Your task to perform on an android device: turn on location history Image 0: 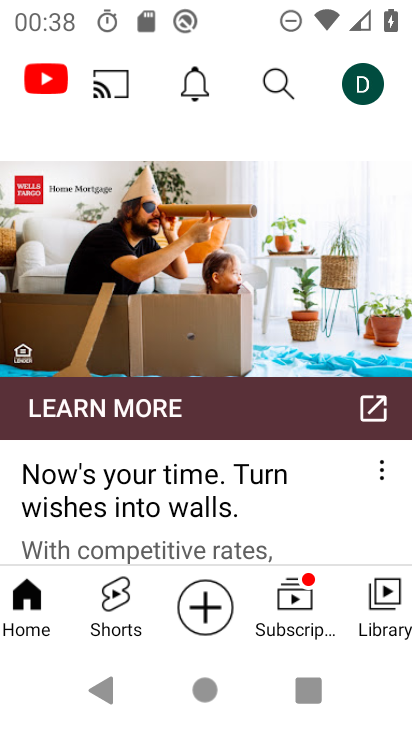
Step 0: press home button
Your task to perform on an android device: turn on location history Image 1: 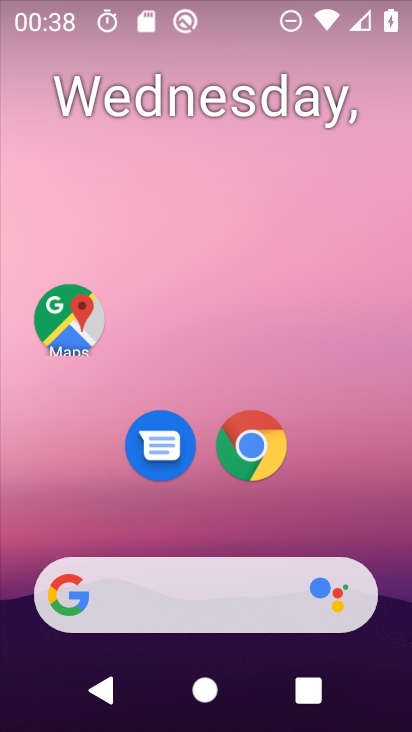
Step 1: drag from (306, 511) to (310, 8)
Your task to perform on an android device: turn on location history Image 2: 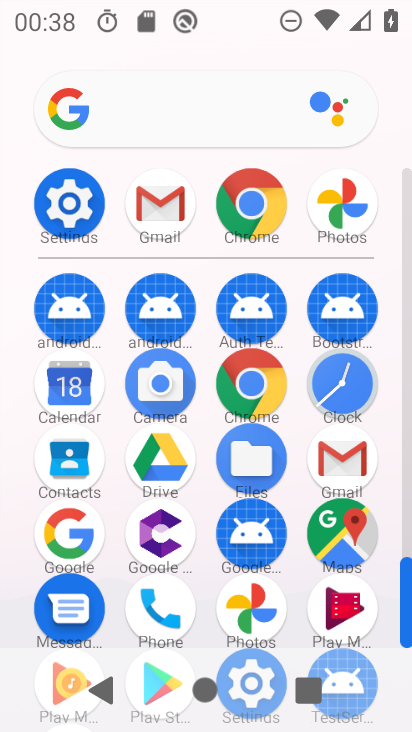
Step 2: click (67, 201)
Your task to perform on an android device: turn on location history Image 3: 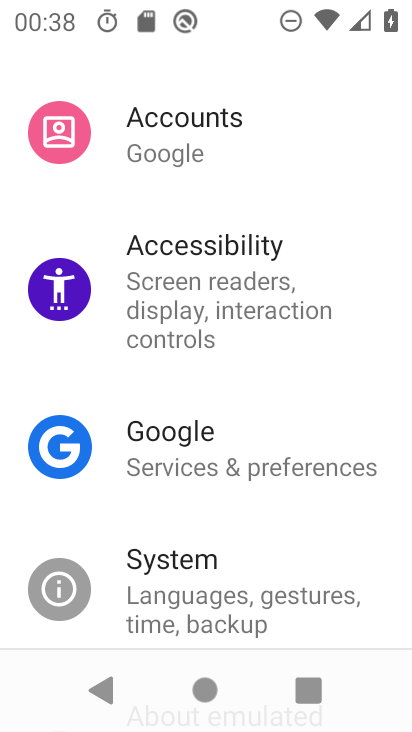
Step 3: drag from (265, 586) to (286, 714)
Your task to perform on an android device: turn on location history Image 4: 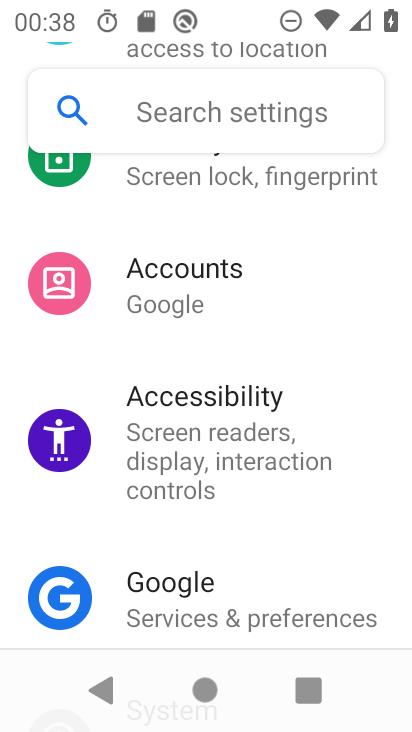
Step 4: drag from (311, 383) to (303, 634)
Your task to perform on an android device: turn on location history Image 5: 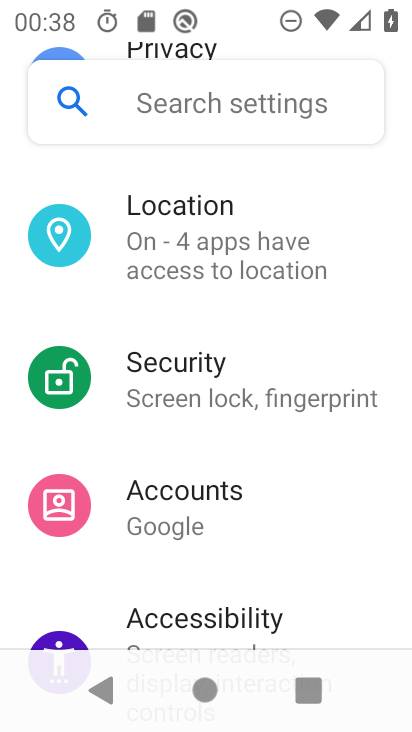
Step 5: click (279, 256)
Your task to perform on an android device: turn on location history Image 6: 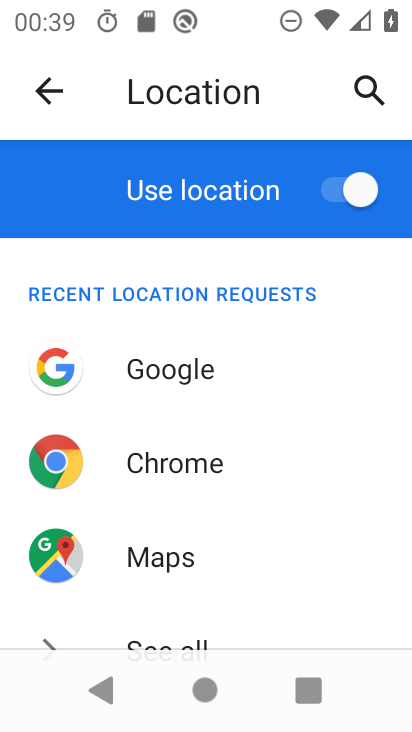
Step 6: drag from (169, 530) to (229, 354)
Your task to perform on an android device: turn on location history Image 7: 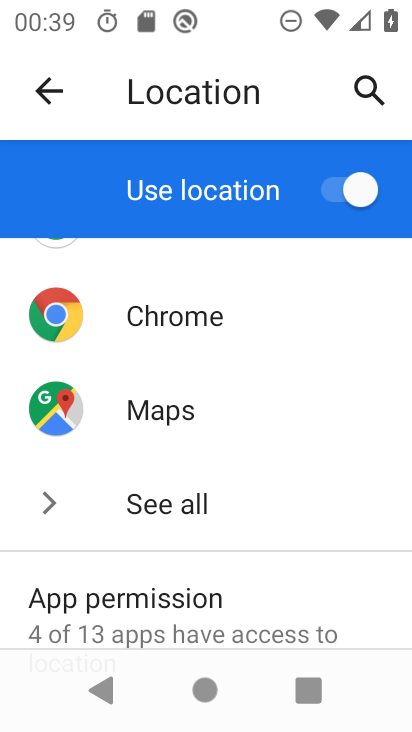
Step 7: drag from (214, 566) to (277, 381)
Your task to perform on an android device: turn on location history Image 8: 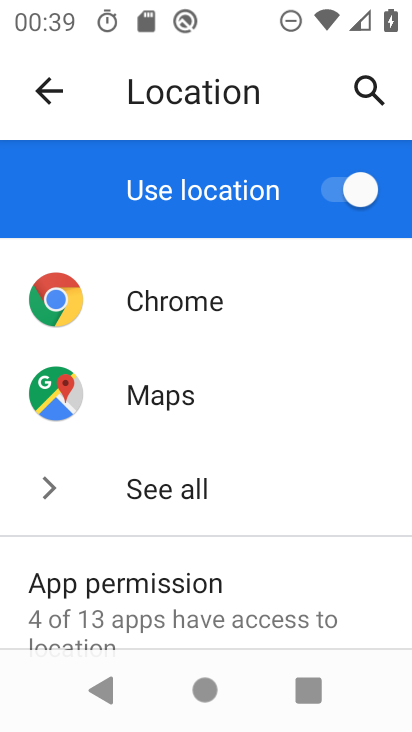
Step 8: drag from (216, 596) to (287, 339)
Your task to perform on an android device: turn on location history Image 9: 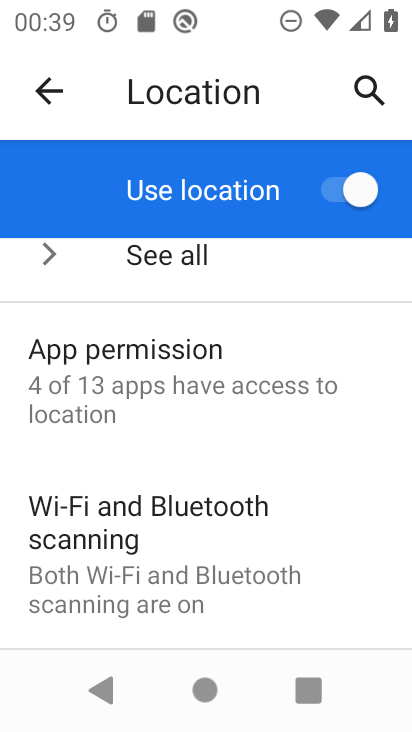
Step 9: drag from (215, 621) to (299, 286)
Your task to perform on an android device: turn on location history Image 10: 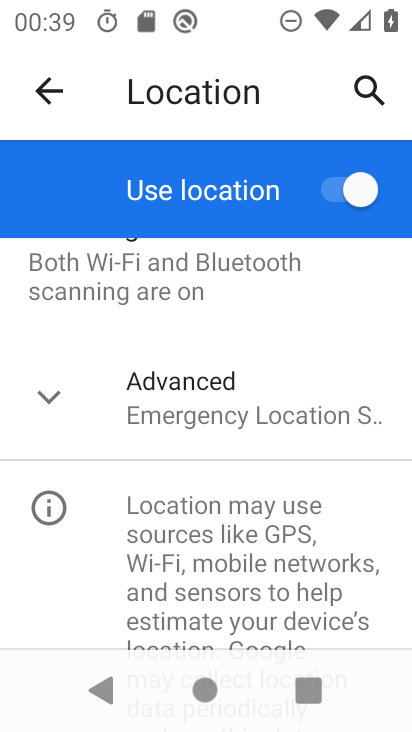
Step 10: click (218, 388)
Your task to perform on an android device: turn on location history Image 11: 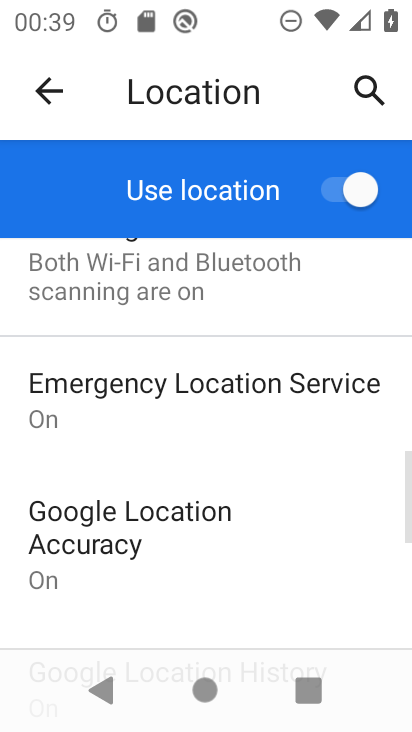
Step 11: drag from (185, 558) to (232, 311)
Your task to perform on an android device: turn on location history Image 12: 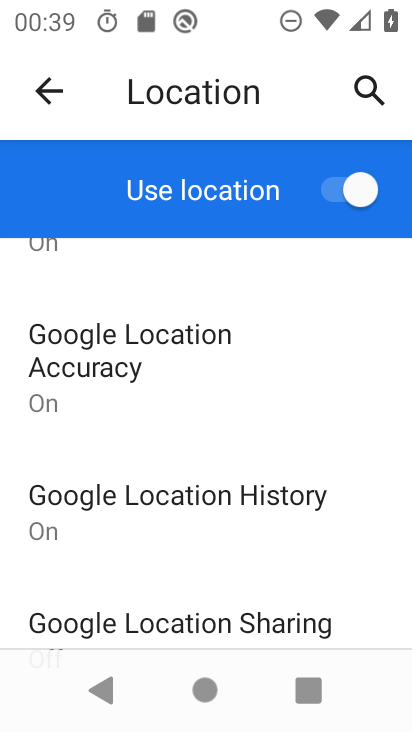
Step 12: click (201, 485)
Your task to perform on an android device: turn on location history Image 13: 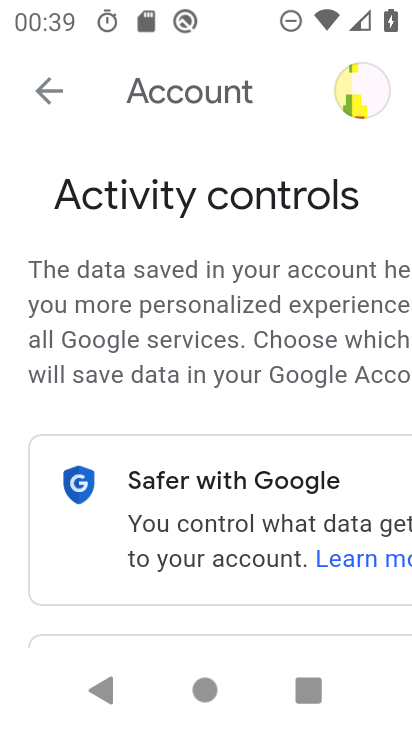
Step 13: task complete